Your task to perform on an android device: Open sound settings Image 0: 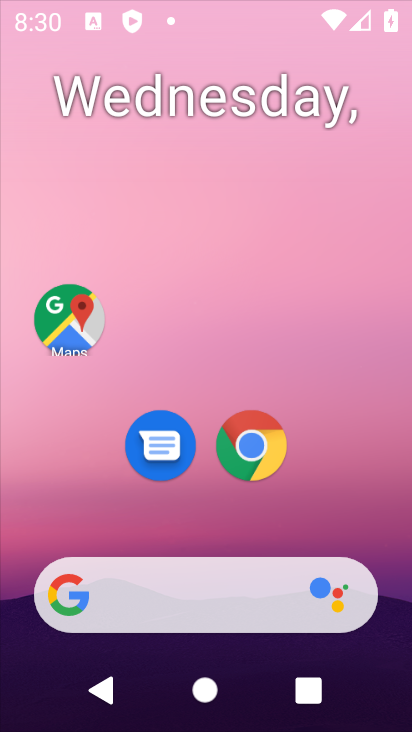
Step 0: drag from (331, 34) to (0, 128)
Your task to perform on an android device: Open sound settings Image 1: 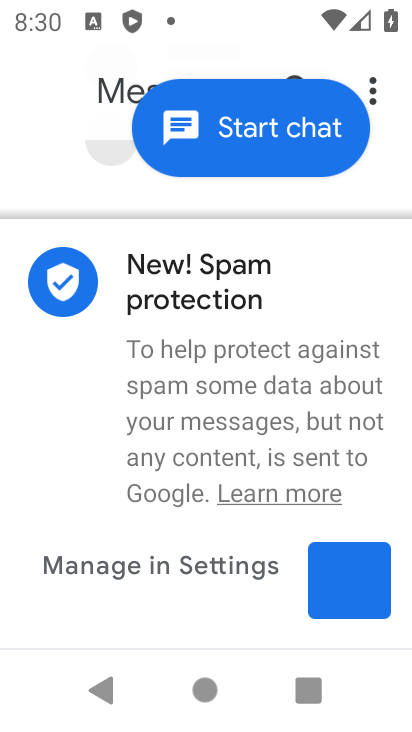
Step 1: press home button
Your task to perform on an android device: Open sound settings Image 2: 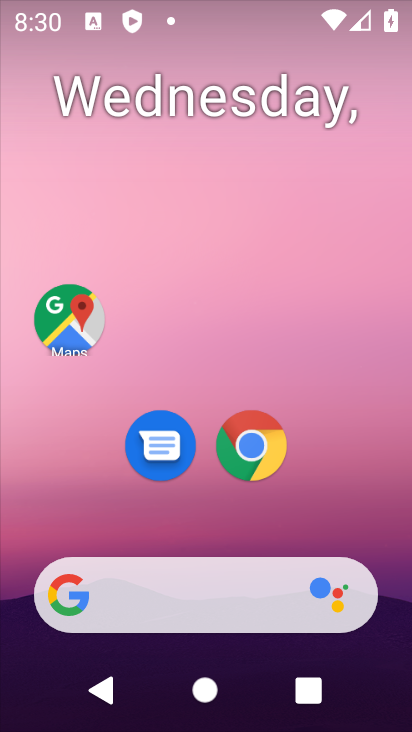
Step 2: drag from (303, 366) to (305, 131)
Your task to perform on an android device: Open sound settings Image 3: 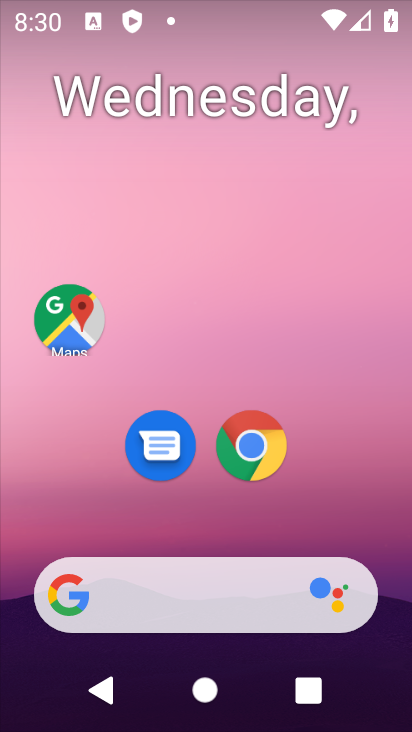
Step 3: drag from (338, 540) to (344, 72)
Your task to perform on an android device: Open sound settings Image 4: 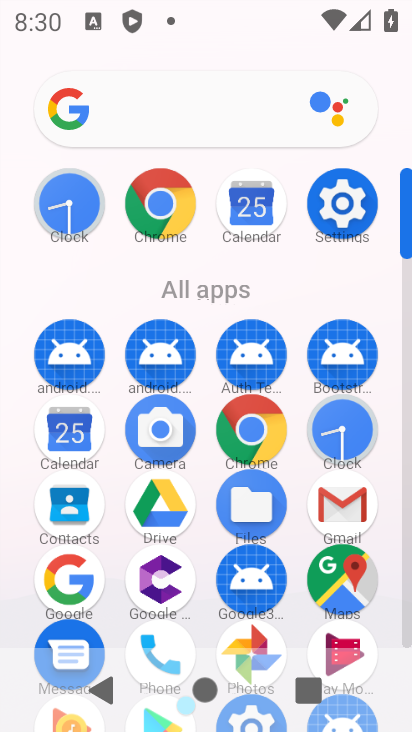
Step 4: click (348, 203)
Your task to perform on an android device: Open sound settings Image 5: 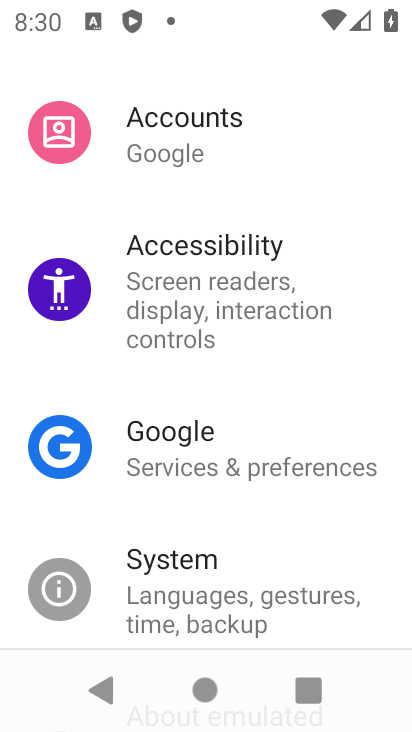
Step 5: drag from (312, 555) to (321, 179)
Your task to perform on an android device: Open sound settings Image 6: 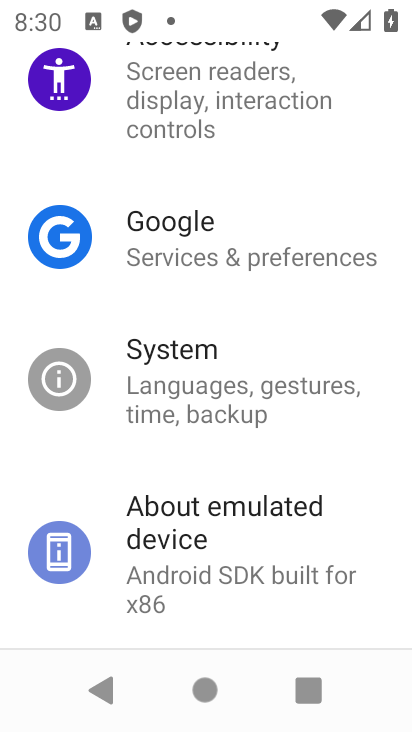
Step 6: drag from (277, 490) to (296, 93)
Your task to perform on an android device: Open sound settings Image 7: 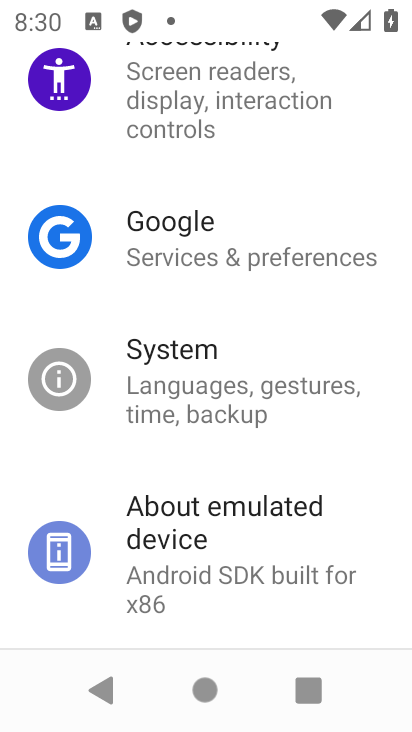
Step 7: drag from (239, 479) to (268, 167)
Your task to perform on an android device: Open sound settings Image 8: 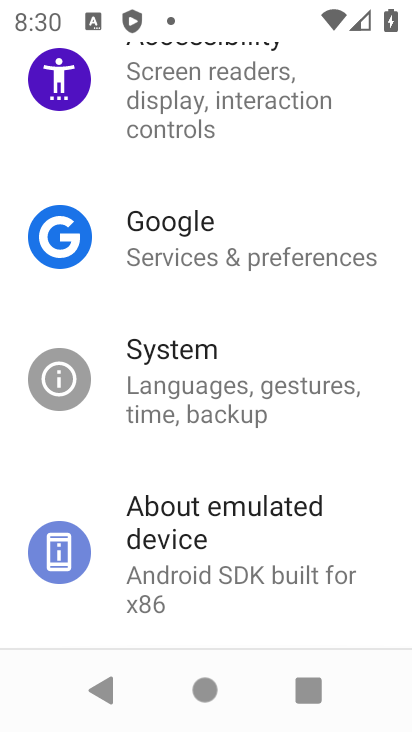
Step 8: drag from (287, 142) to (352, 605)
Your task to perform on an android device: Open sound settings Image 9: 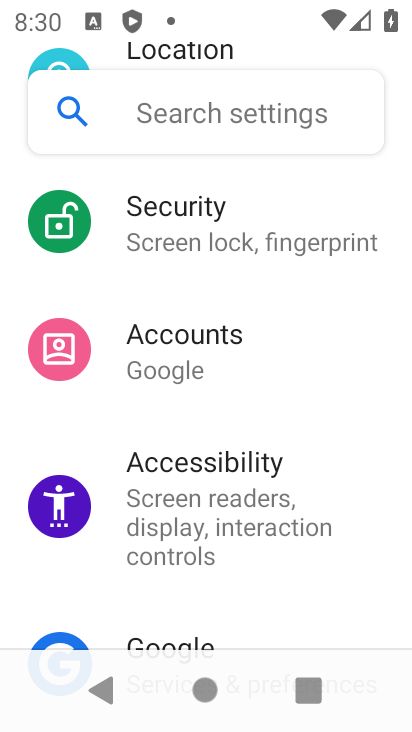
Step 9: drag from (347, 266) to (343, 662)
Your task to perform on an android device: Open sound settings Image 10: 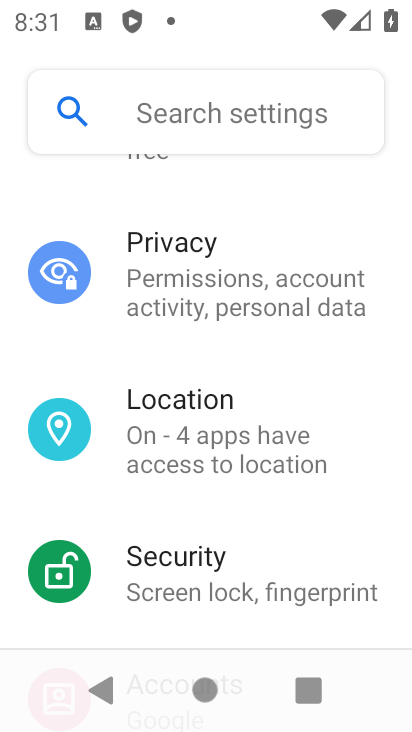
Step 10: drag from (259, 229) to (278, 670)
Your task to perform on an android device: Open sound settings Image 11: 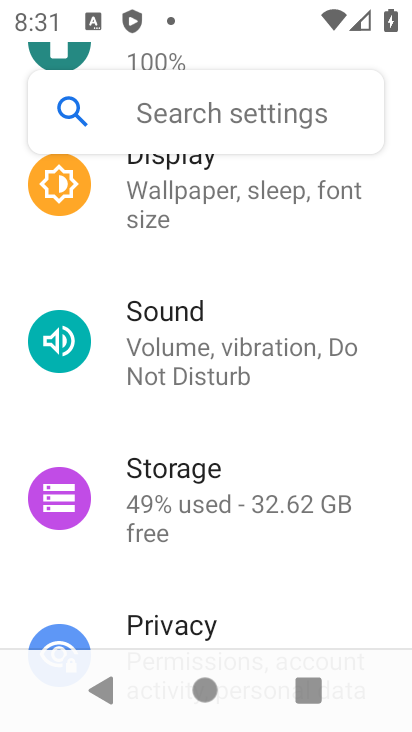
Step 11: click (209, 355)
Your task to perform on an android device: Open sound settings Image 12: 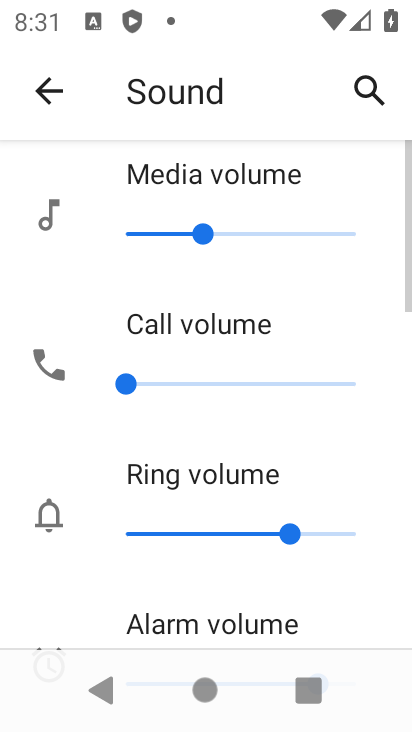
Step 12: task complete